Your task to perform on an android device: move a message to another label in the gmail app Image 0: 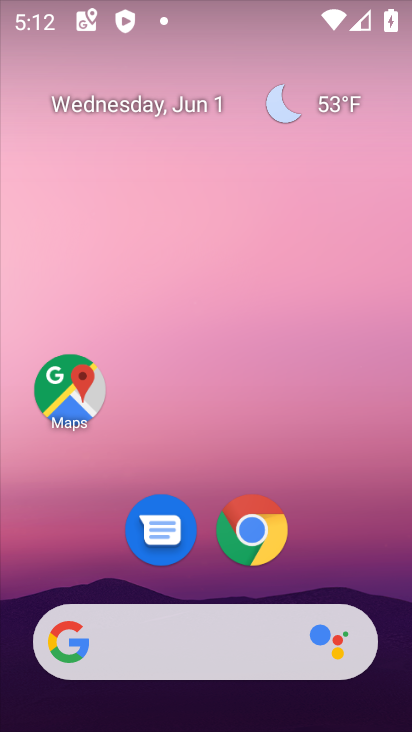
Step 0: drag from (205, 577) to (237, 246)
Your task to perform on an android device: move a message to another label in the gmail app Image 1: 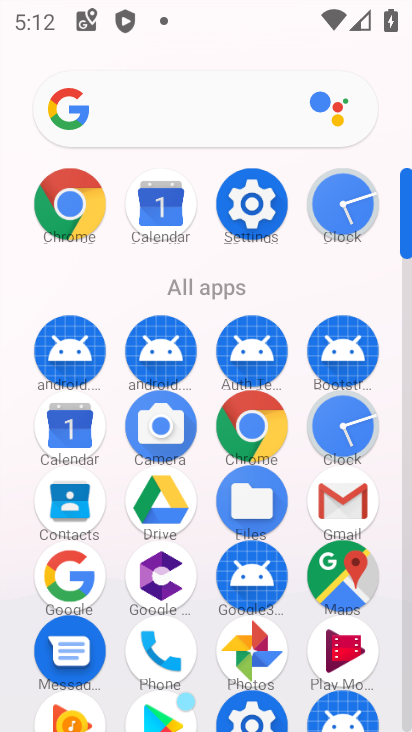
Step 1: click (331, 510)
Your task to perform on an android device: move a message to another label in the gmail app Image 2: 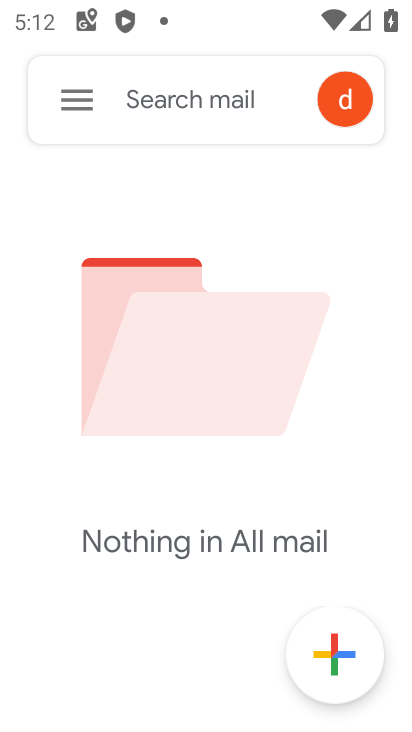
Step 2: click (72, 99)
Your task to perform on an android device: move a message to another label in the gmail app Image 3: 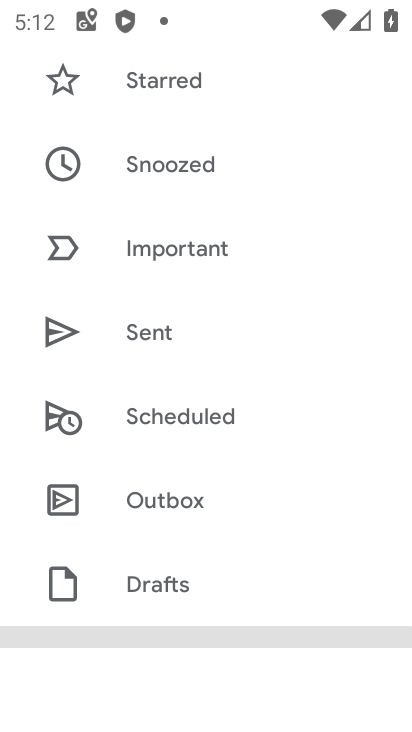
Step 3: task complete